Your task to perform on an android device: Open Google Chrome Image 0: 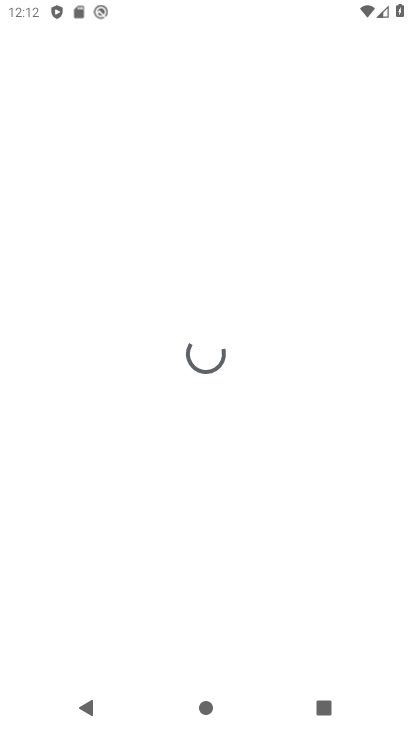
Step 0: drag from (365, 657) to (411, 164)
Your task to perform on an android device: Open Google Chrome Image 1: 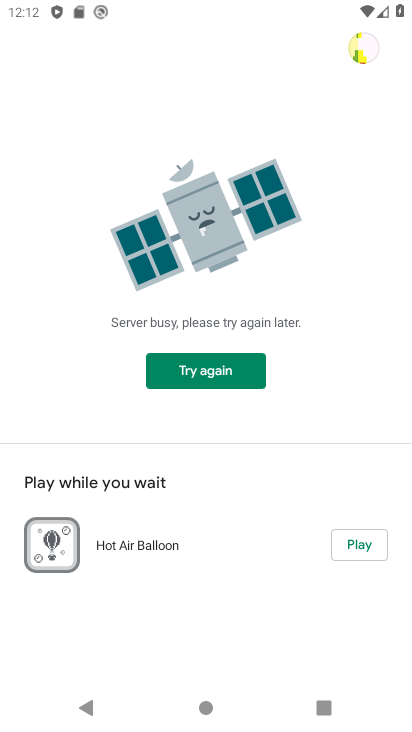
Step 1: press home button
Your task to perform on an android device: Open Google Chrome Image 2: 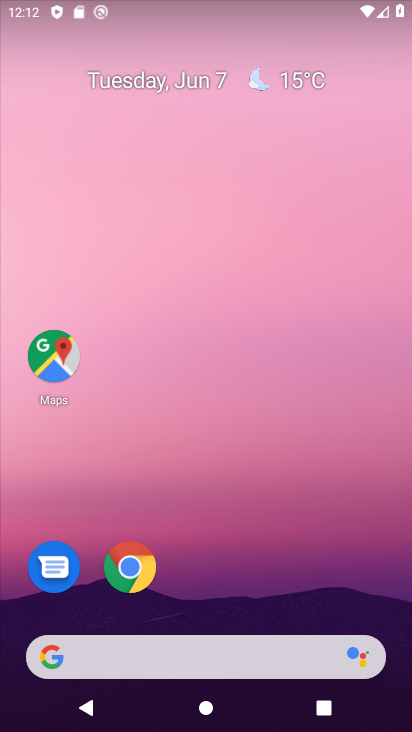
Step 2: drag from (310, 644) to (345, 291)
Your task to perform on an android device: Open Google Chrome Image 3: 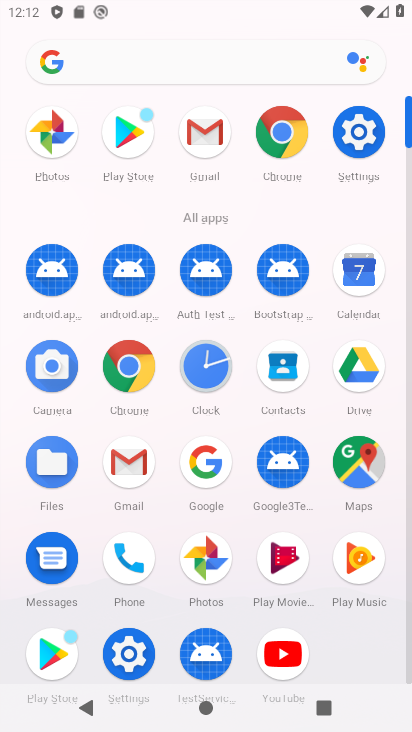
Step 3: click (135, 356)
Your task to perform on an android device: Open Google Chrome Image 4: 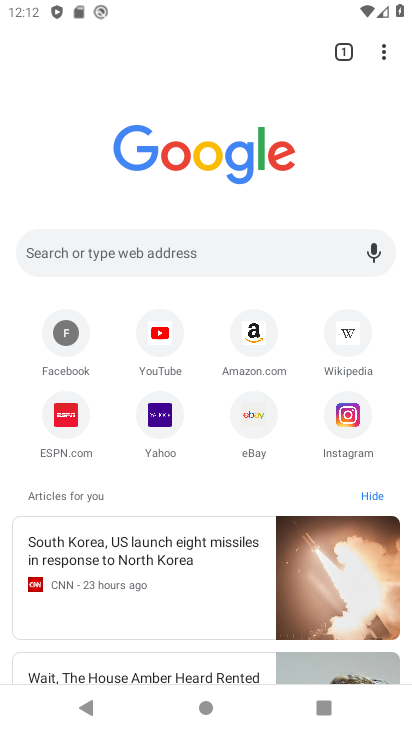
Step 4: task complete